Your task to perform on an android device: turn off smart reply in the gmail app Image 0: 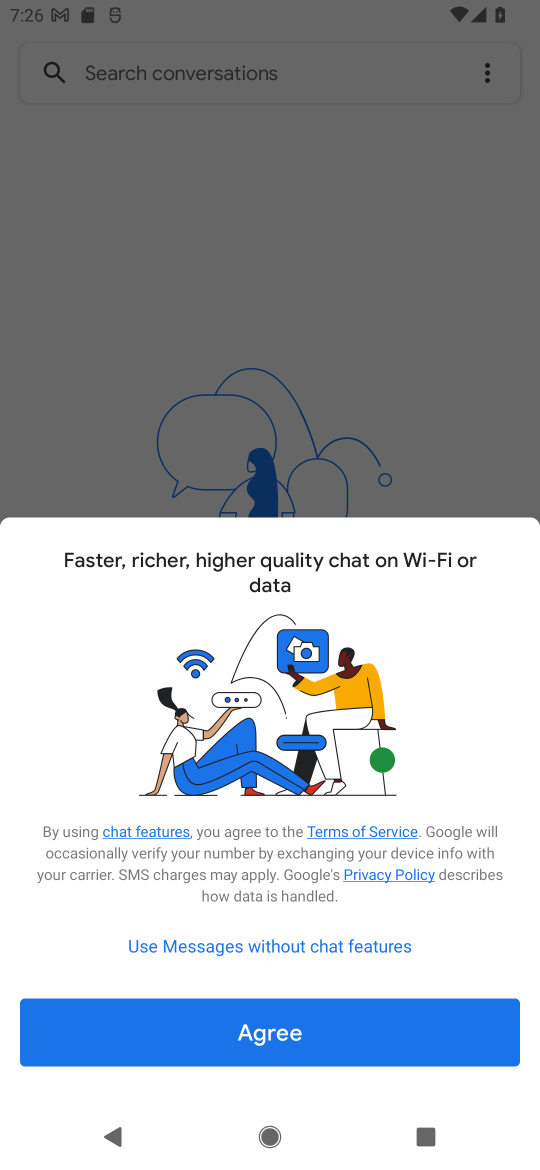
Step 0: press home button
Your task to perform on an android device: turn off smart reply in the gmail app Image 1: 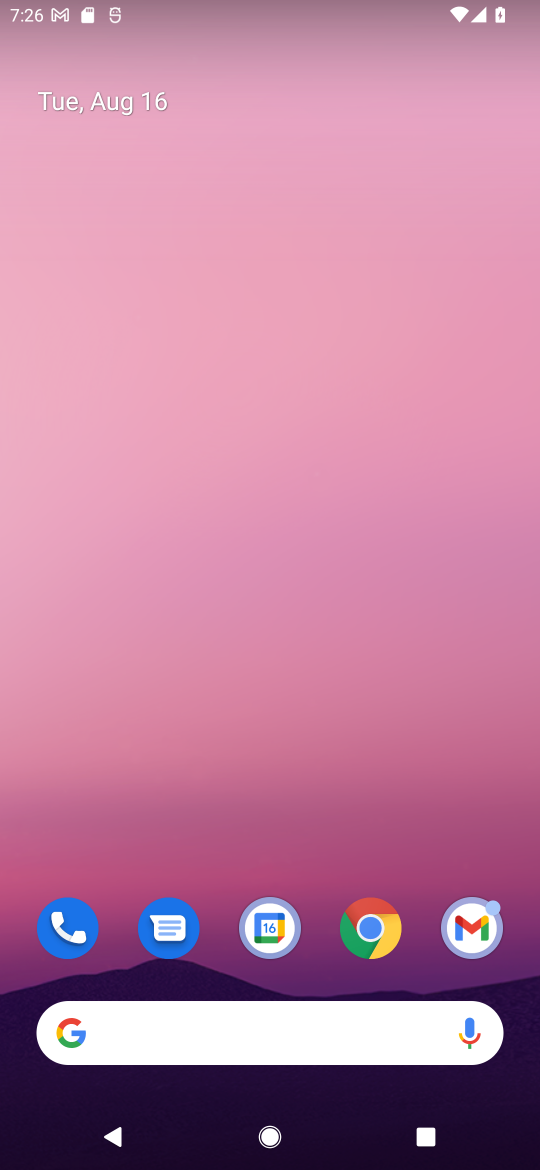
Step 1: drag from (272, 1007) to (13, 25)
Your task to perform on an android device: turn off smart reply in the gmail app Image 2: 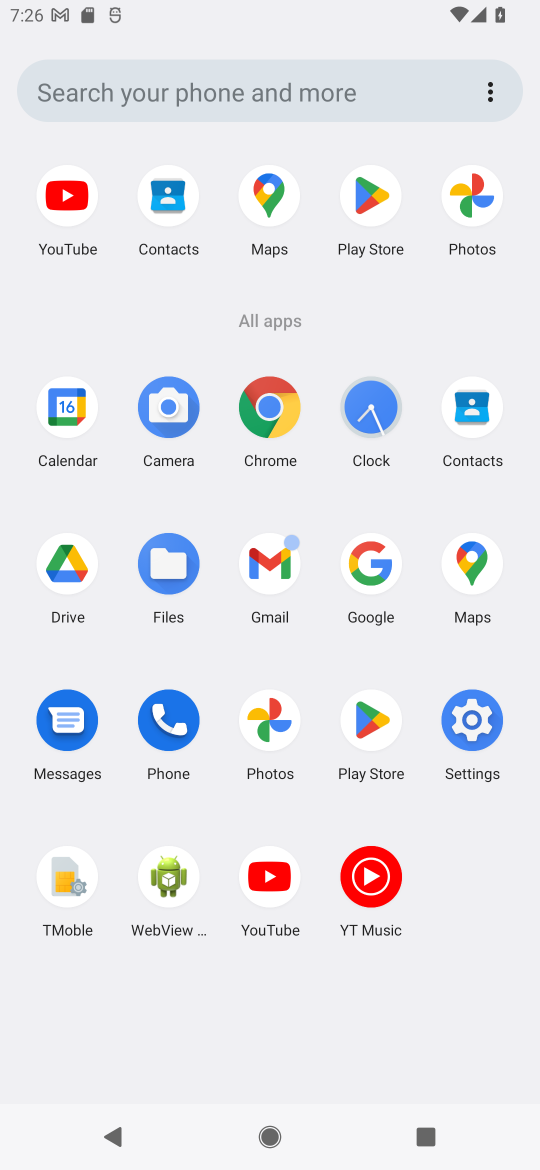
Step 2: click (276, 560)
Your task to perform on an android device: turn off smart reply in the gmail app Image 3: 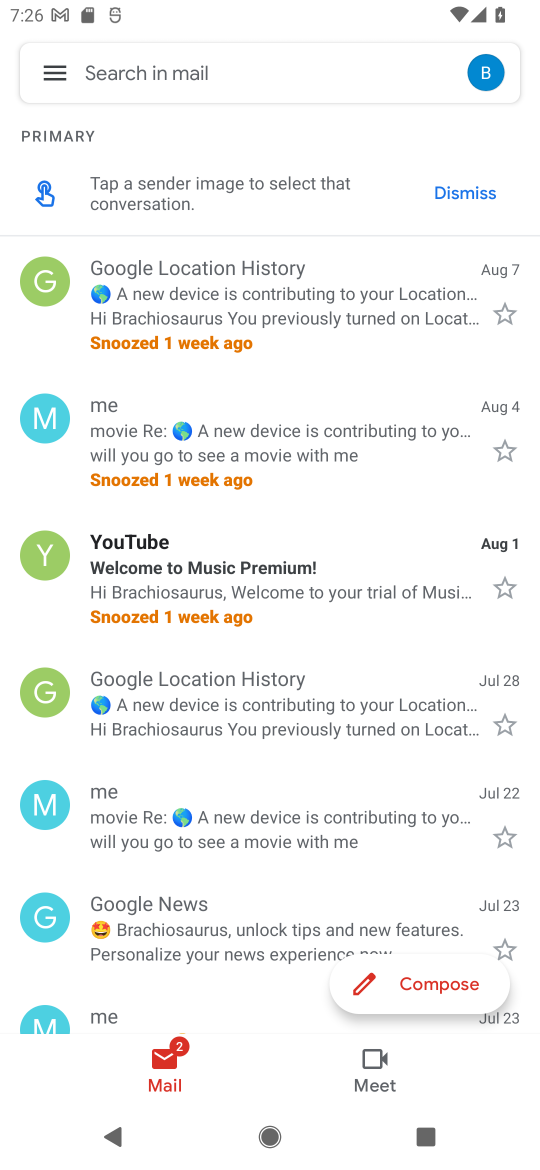
Step 3: click (55, 73)
Your task to perform on an android device: turn off smart reply in the gmail app Image 4: 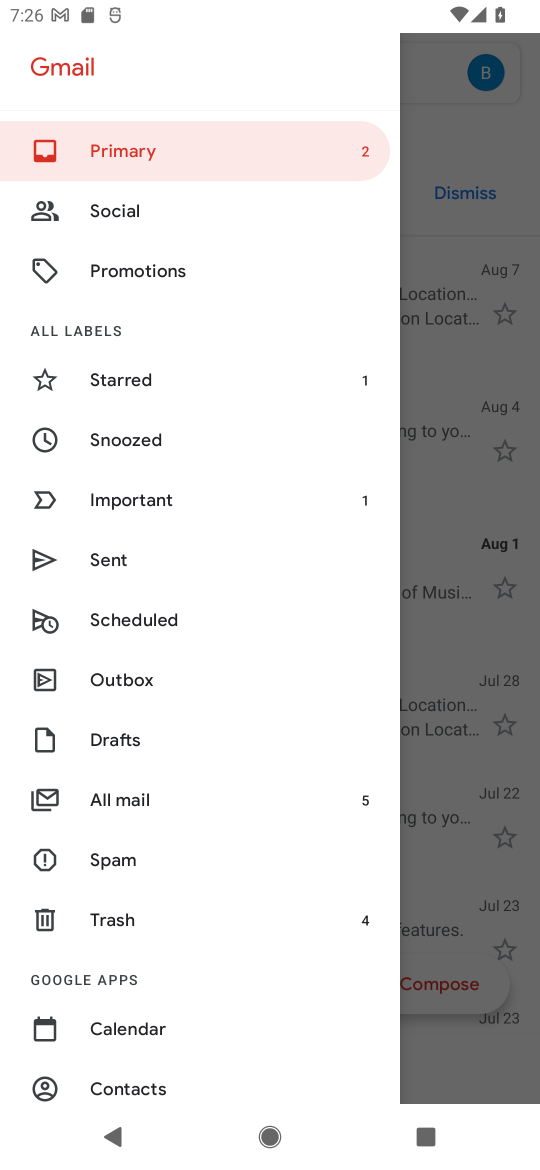
Step 4: drag from (133, 1024) to (135, 510)
Your task to perform on an android device: turn off smart reply in the gmail app Image 5: 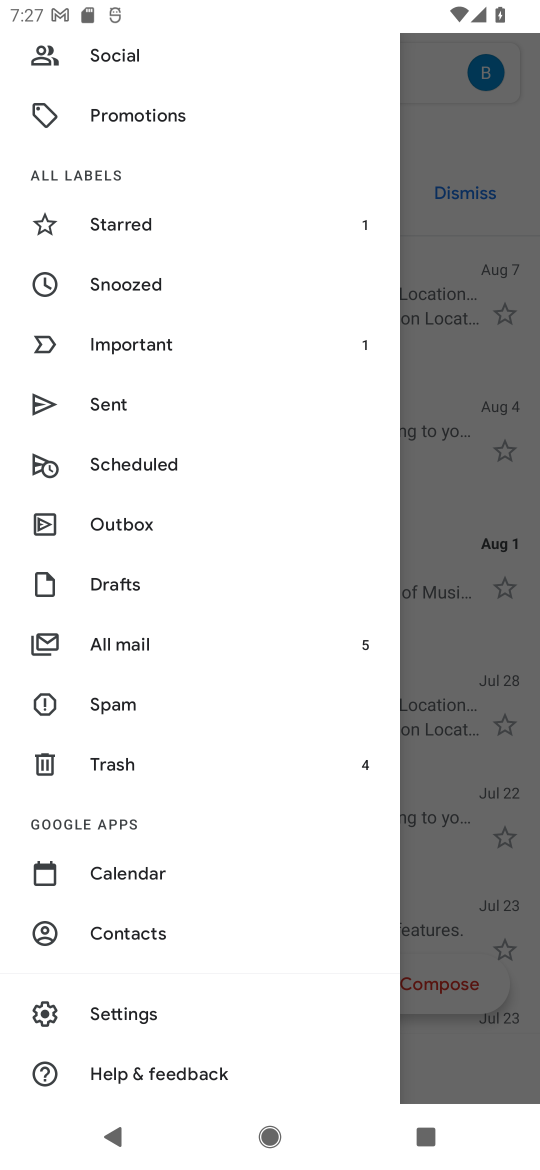
Step 5: click (139, 1006)
Your task to perform on an android device: turn off smart reply in the gmail app Image 6: 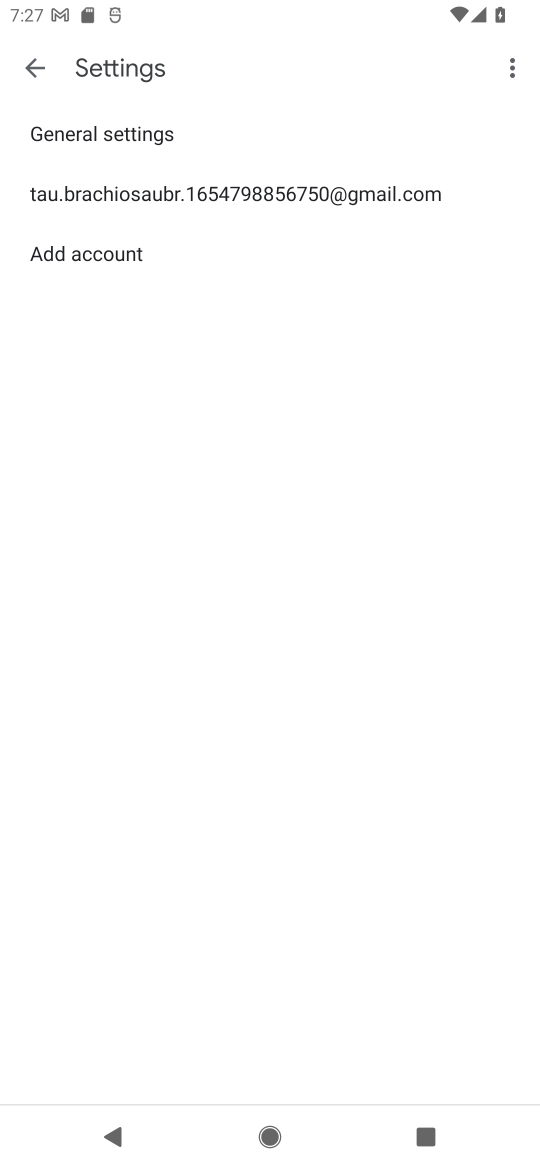
Step 6: click (183, 195)
Your task to perform on an android device: turn off smart reply in the gmail app Image 7: 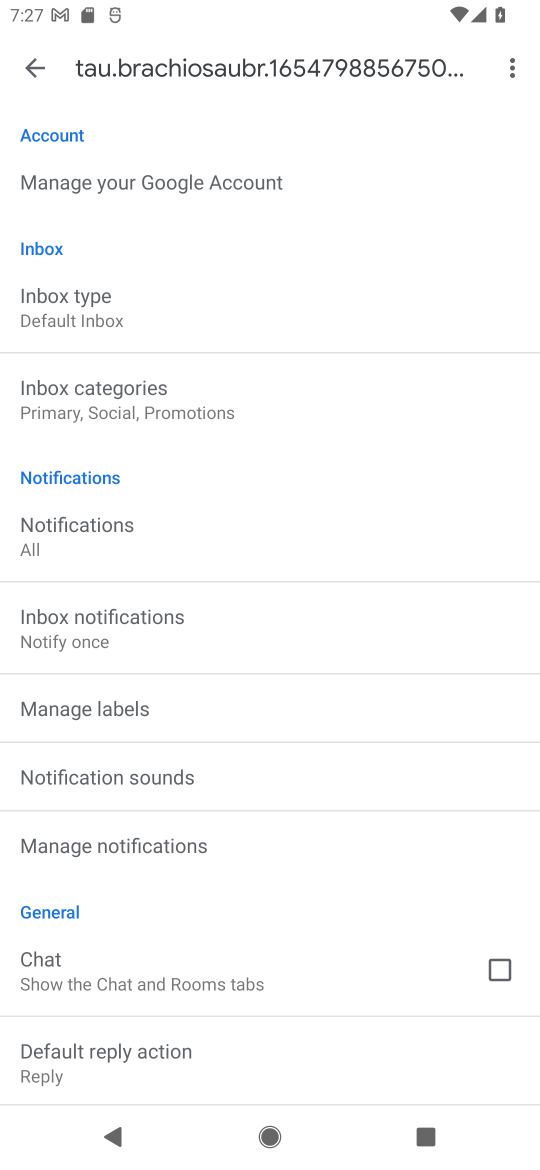
Step 7: drag from (218, 953) to (272, 111)
Your task to perform on an android device: turn off smart reply in the gmail app Image 8: 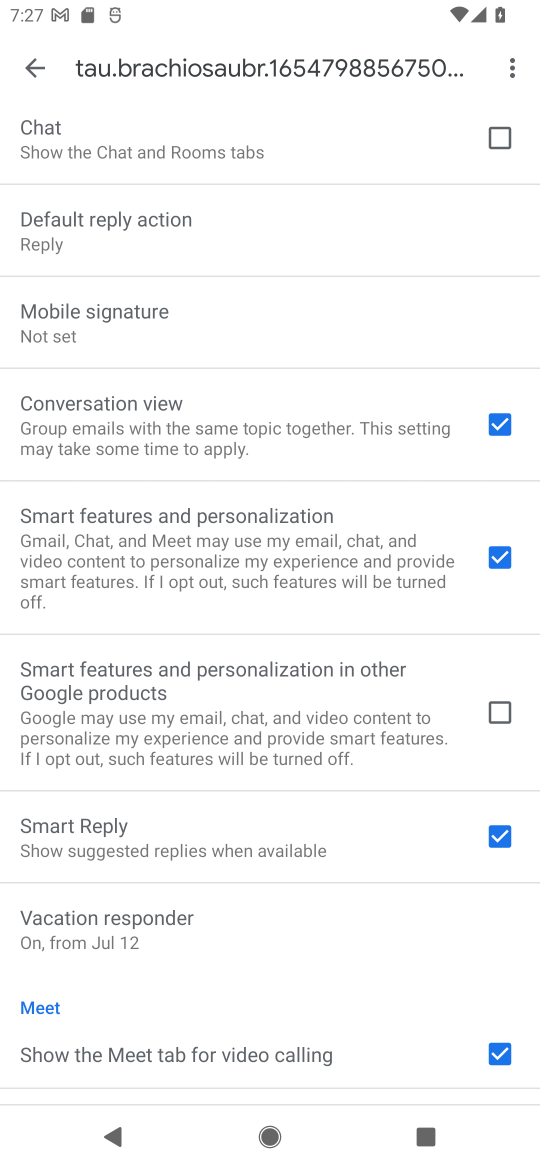
Step 8: click (493, 850)
Your task to perform on an android device: turn off smart reply in the gmail app Image 9: 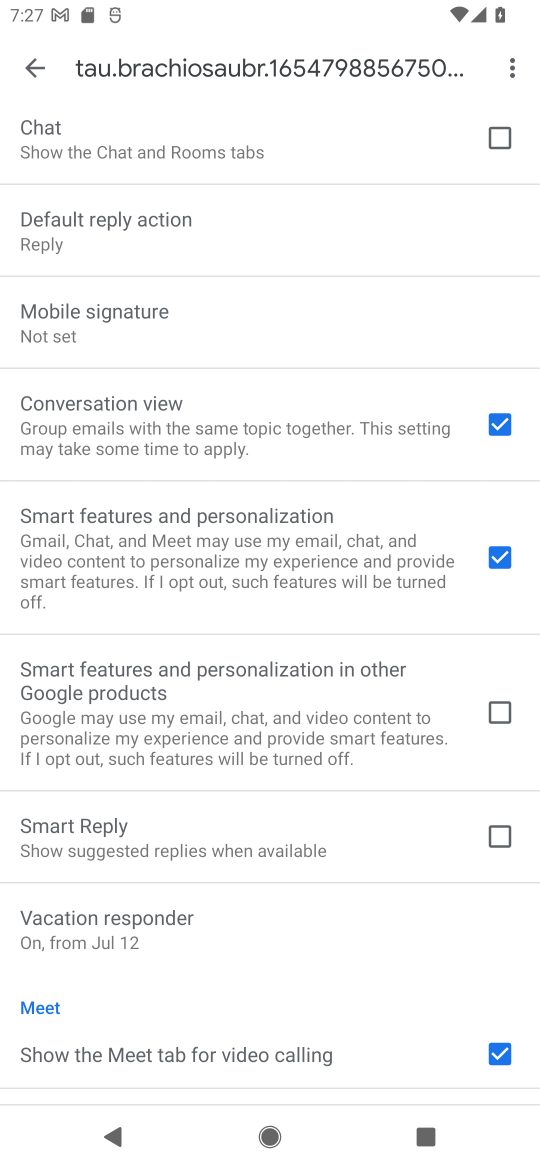
Step 9: task complete